Your task to perform on an android device: Go to Android settings Image 0: 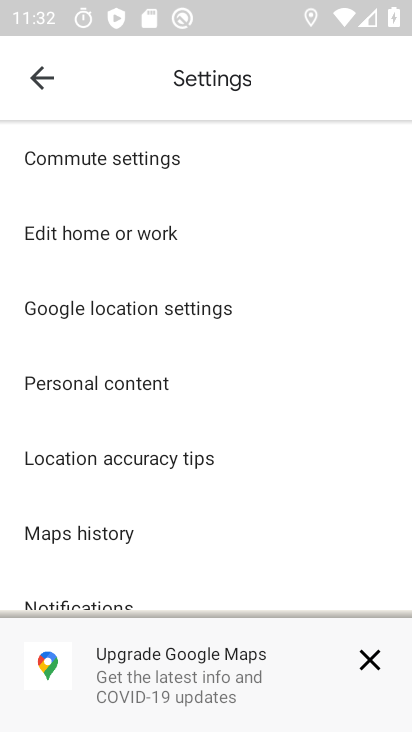
Step 0: press home button
Your task to perform on an android device: Go to Android settings Image 1: 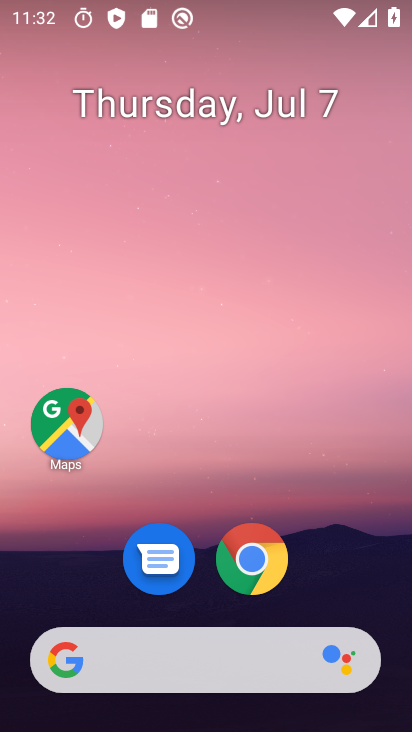
Step 1: drag from (373, 566) to (364, 124)
Your task to perform on an android device: Go to Android settings Image 2: 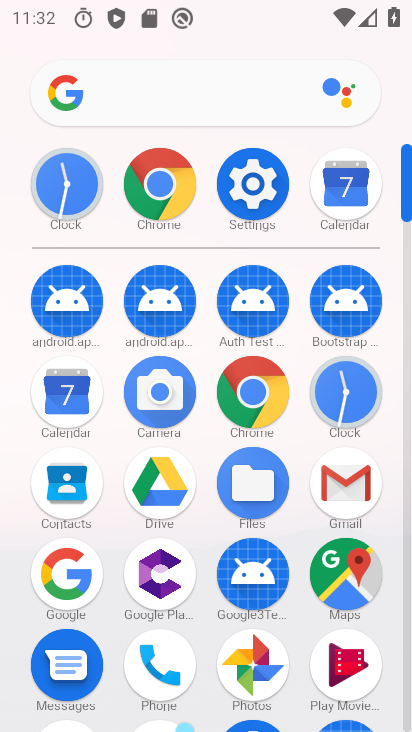
Step 2: click (268, 183)
Your task to perform on an android device: Go to Android settings Image 3: 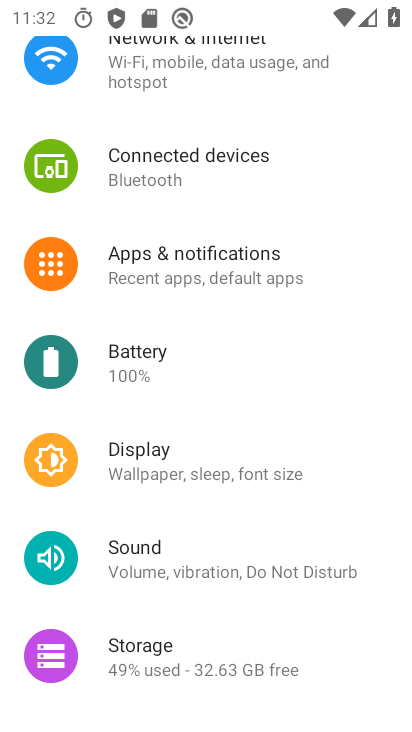
Step 3: drag from (342, 620) to (345, 408)
Your task to perform on an android device: Go to Android settings Image 4: 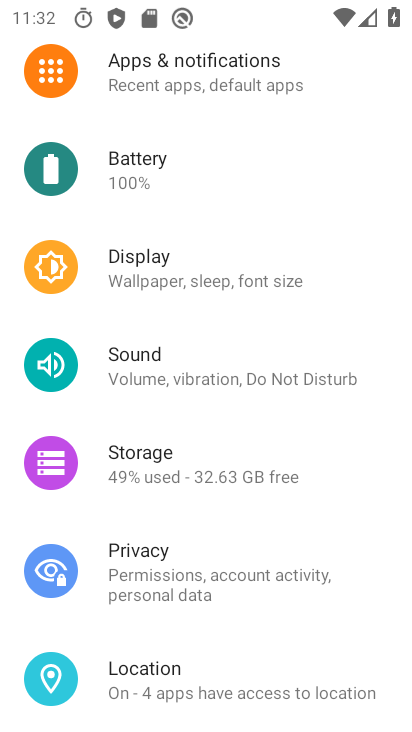
Step 4: drag from (352, 278) to (341, 479)
Your task to perform on an android device: Go to Android settings Image 5: 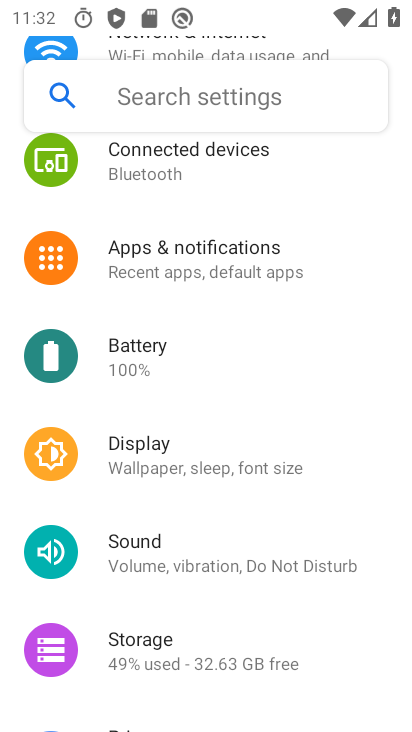
Step 5: drag from (341, 239) to (344, 426)
Your task to perform on an android device: Go to Android settings Image 6: 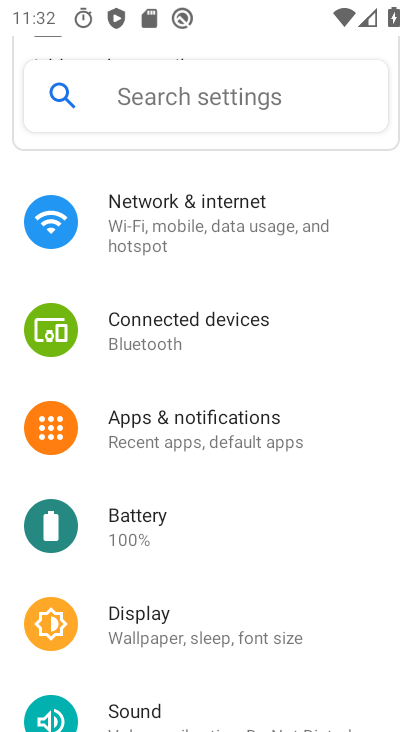
Step 6: drag from (362, 214) to (365, 427)
Your task to perform on an android device: Go to Android settings Image 7: 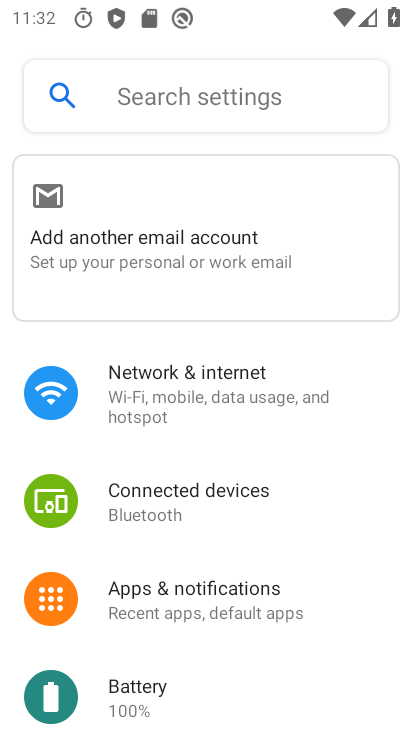
Step 7: drag from (340, 568) to (340, 392)
Your task to perform on an android device: Go to Android settings Image 8: 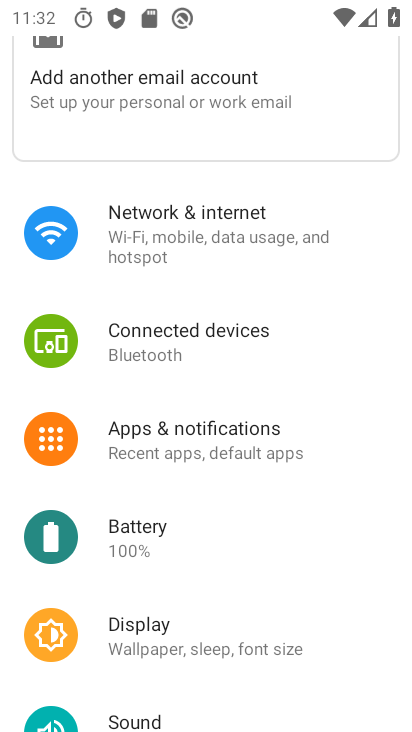
Step 8: drag from (346, 545) to (349, 337)
Your task to perform on an android device: Go to Android settings Image 9: 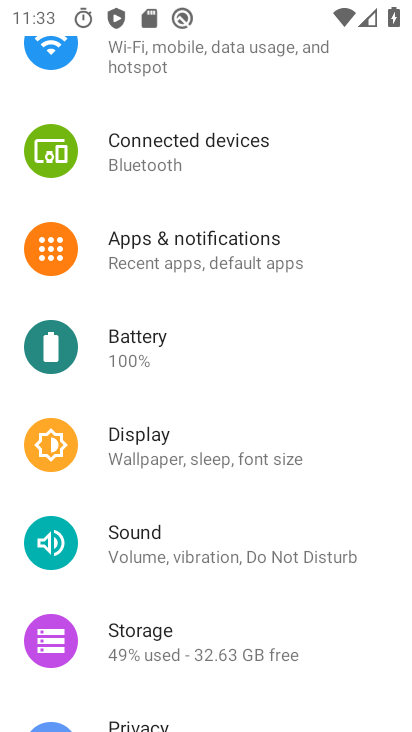
Step 9: drag from (345, 615) to (352, 427)
Your task to perform on an android device: Go to Android settings Image 10: 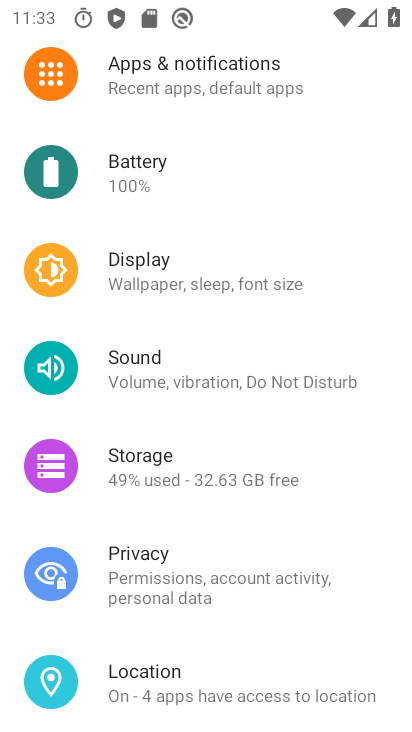
Step 10: drag from (353, 580) to (348, 413)
Your task to perform on an android device: Go to Android settings Image 11: 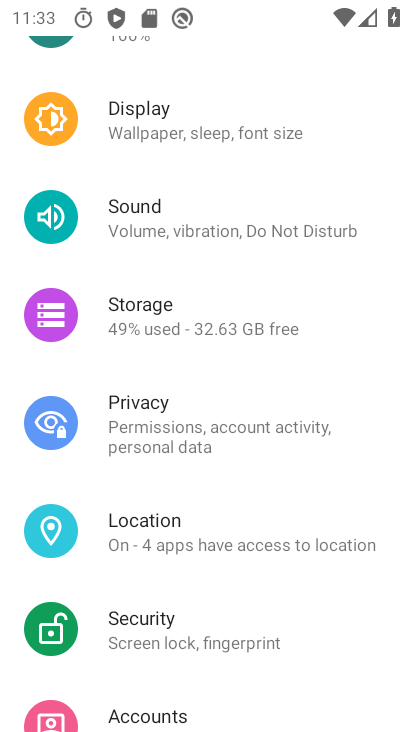
Step 11: drag from (345, 611) to (347, 452)
Your task to perform on an android device: Go to Android settings Image 12: 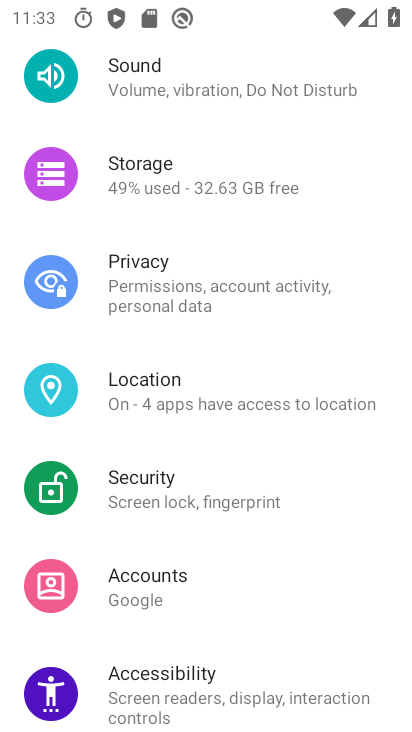
Step 12: drag from (339, 609) to (343, 406)
Your task to perform on an android device: Go to Android settings Image 13: 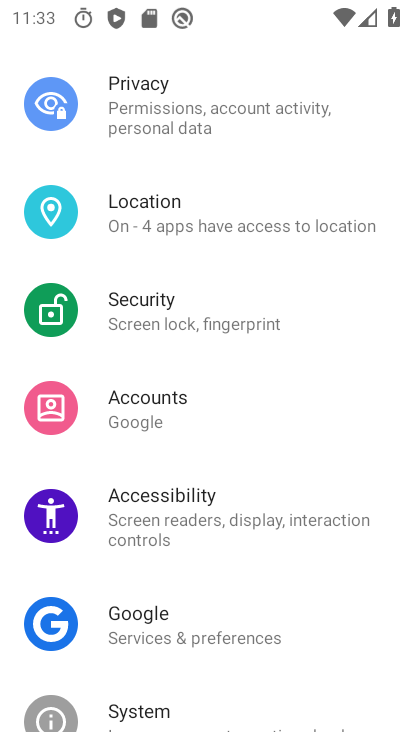
Step 13: drag from (330, 606) to (331, 422)
Your task to perform on an android device: Go to Android settings Image 14: 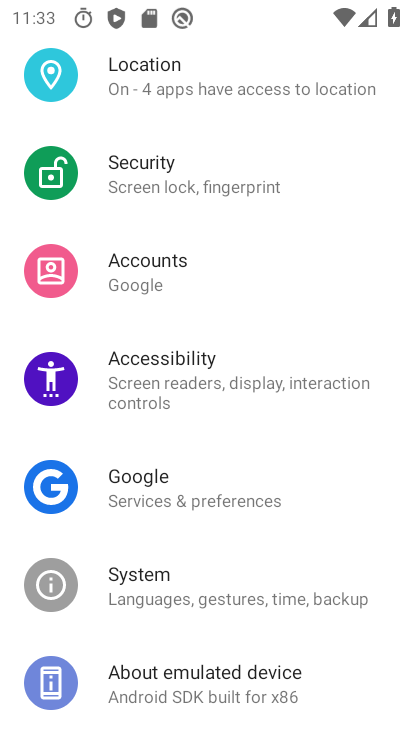
Step 14: click (288, 587)
Your task to perform on an android device: Go to Android settings Image 15: 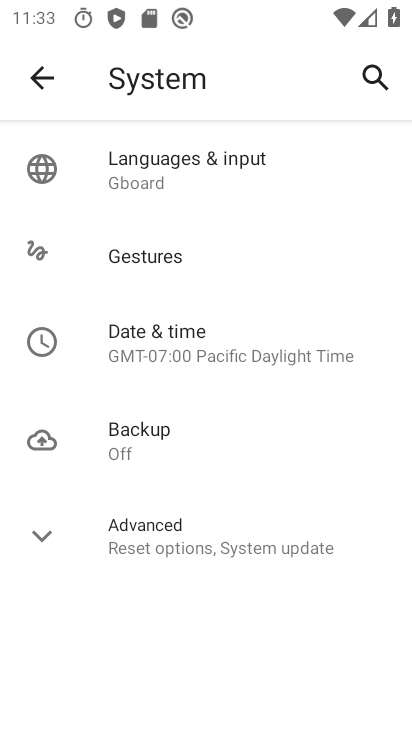
Step 15: click (255, 545)
Your task to perform on an android device: Go to Android settings Image 16: 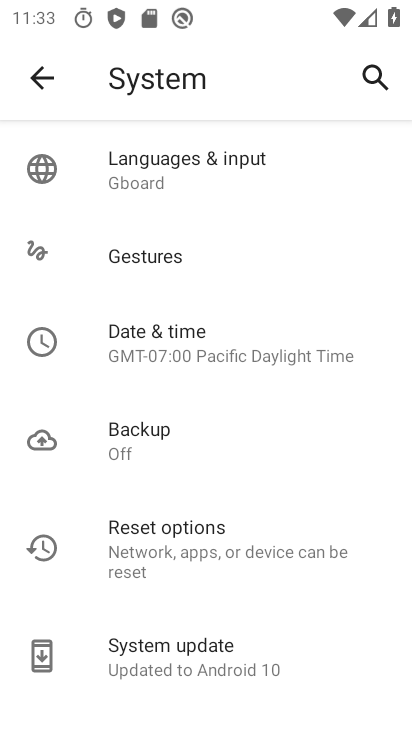
Step 16: task complete